Your task to perform on an android device: Open maps Image 0: 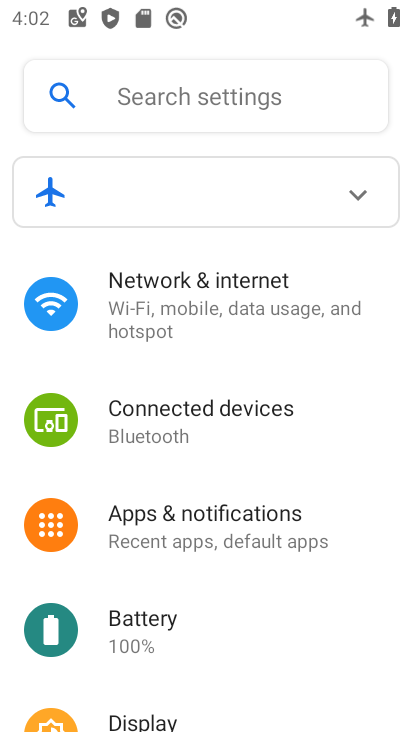
Step 0: press home button
Your task to perform on an android device: Open maps Image 1: 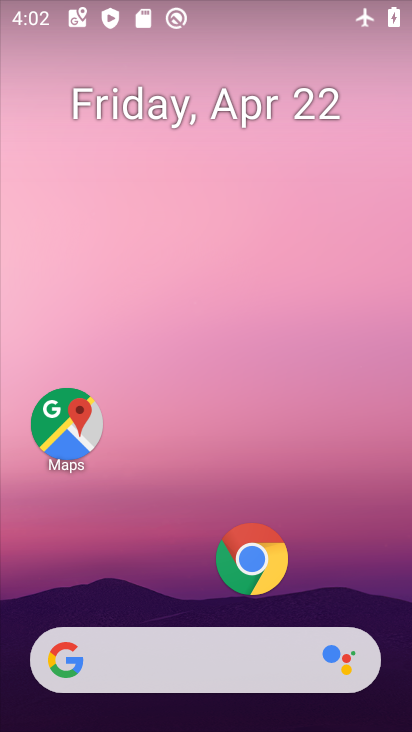
Step 1: press home button
Your task to perform on an android device: Open maps Image 2: 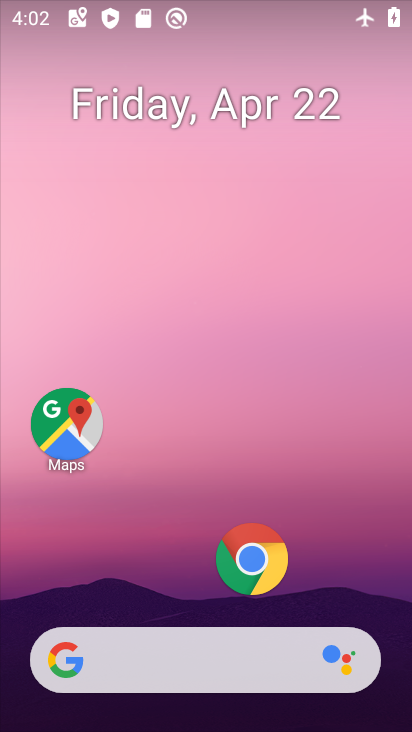
Step 2: click (73, 433)
Your task to perform on an android device: Open maps Image 3: 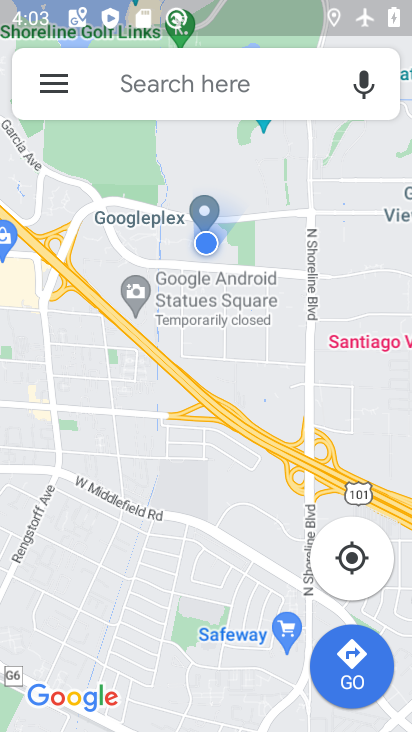
Step 3: task complete